Your task to perform on an android device: Go to calendar. Show me events next week Image 0: 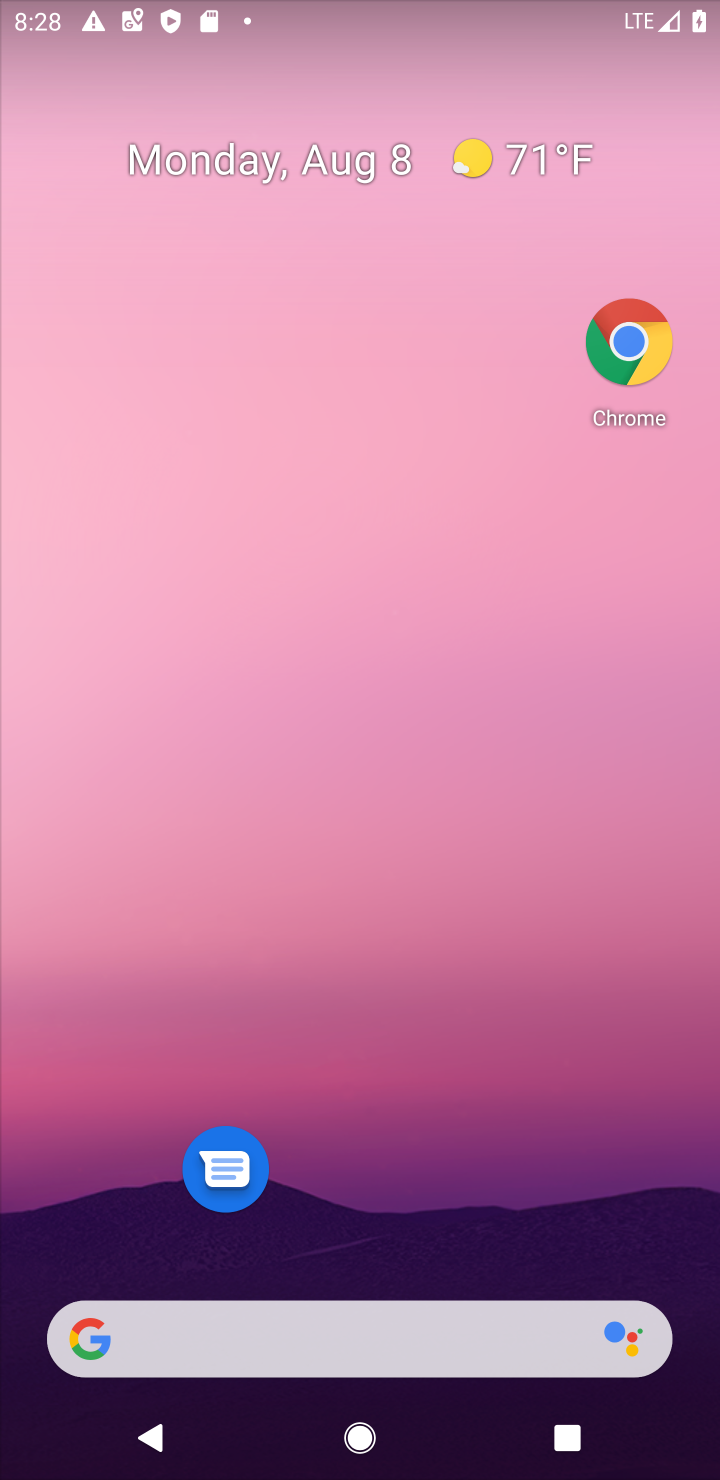
Step 0: drag from (421, 1194) to (603, 64)
Your task to perform on an android device: Go to calendar. Show me events next week Image 1: 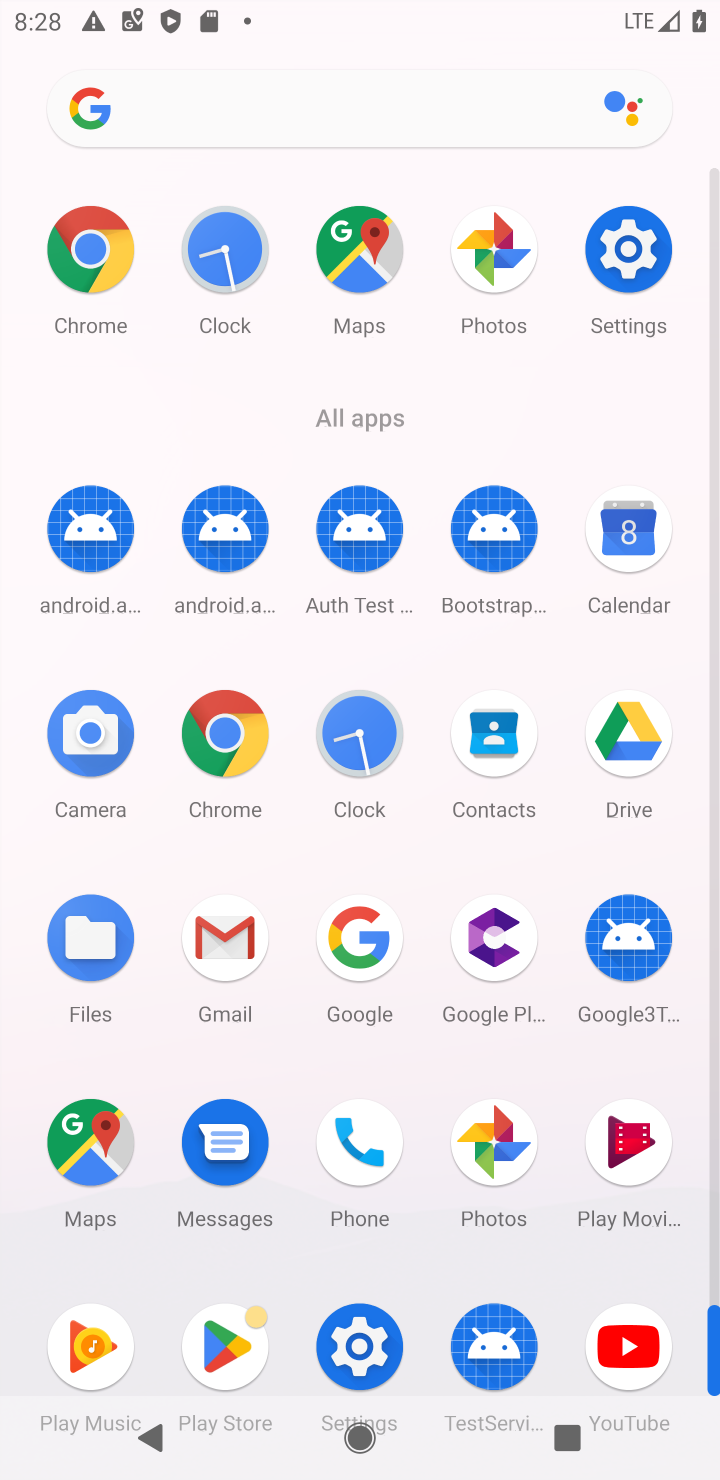
Step 1: click (619, 545)
Your task to perform on an android device: Go to calendar. Show me events next week Image 2: 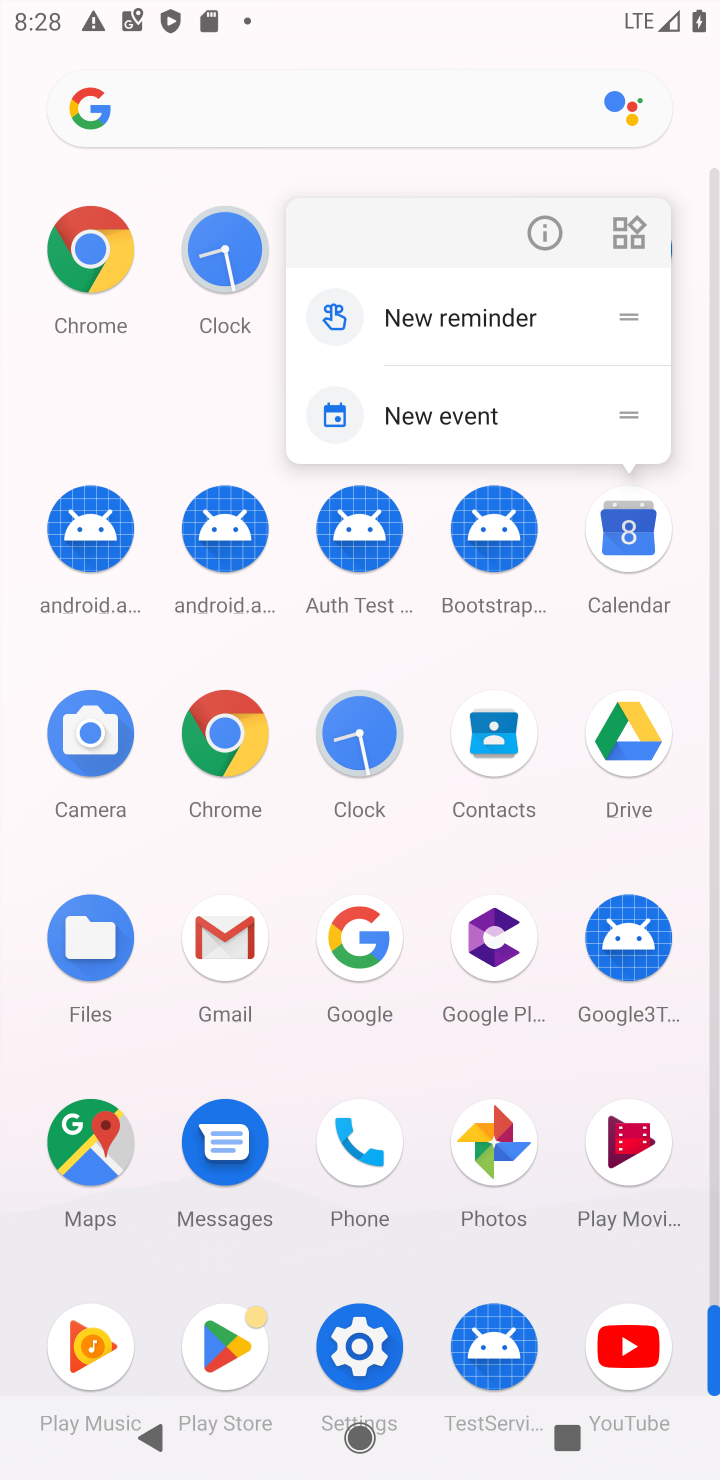
Step 2: click (619, 535)
Your task to perform on an android device: Go to calendar. Show me events next week Image 3: 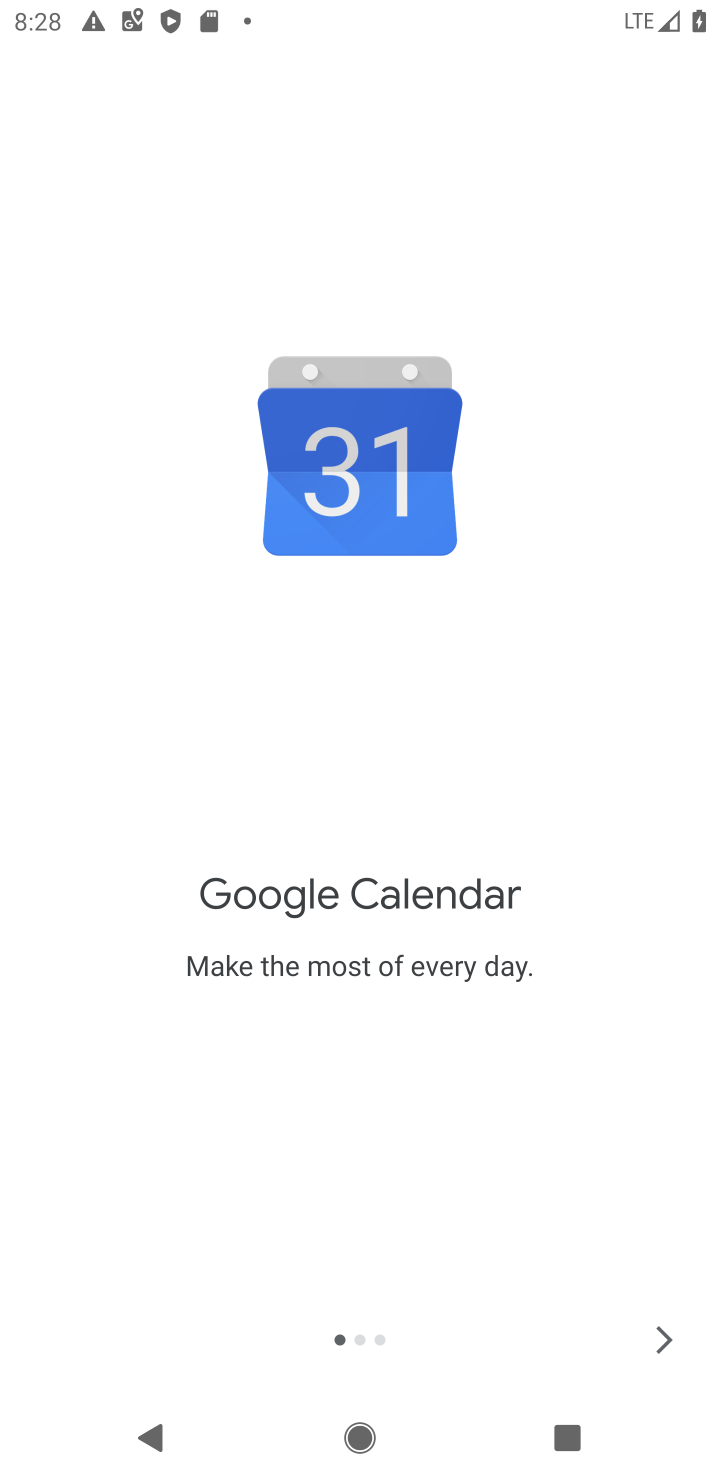
Step 3: click (657, 1341)
Your task to perform on an android device: Go to calendar. Show me events next week Image 4: 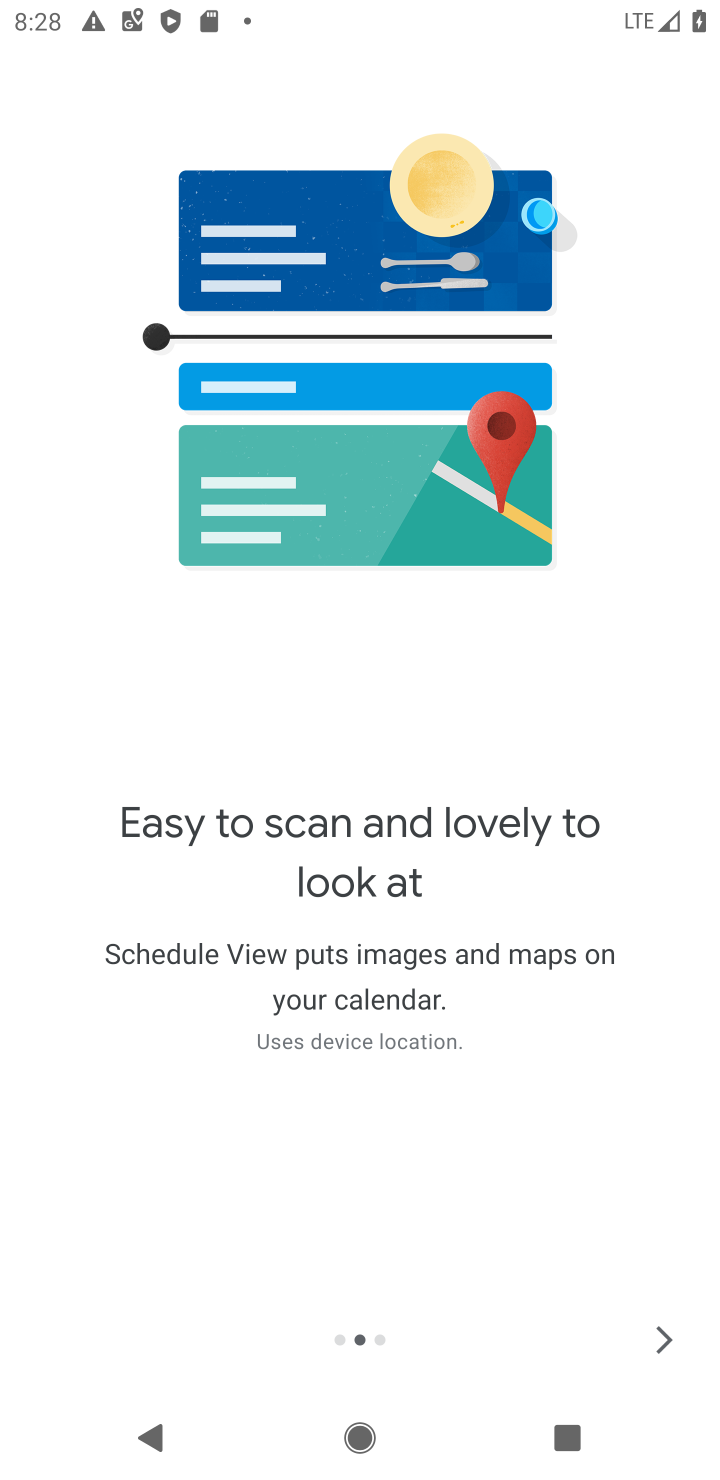
Step 4: click (657, 1341)
Your task to perform on an android device: Go to calendar. Show me events next week Image 5: 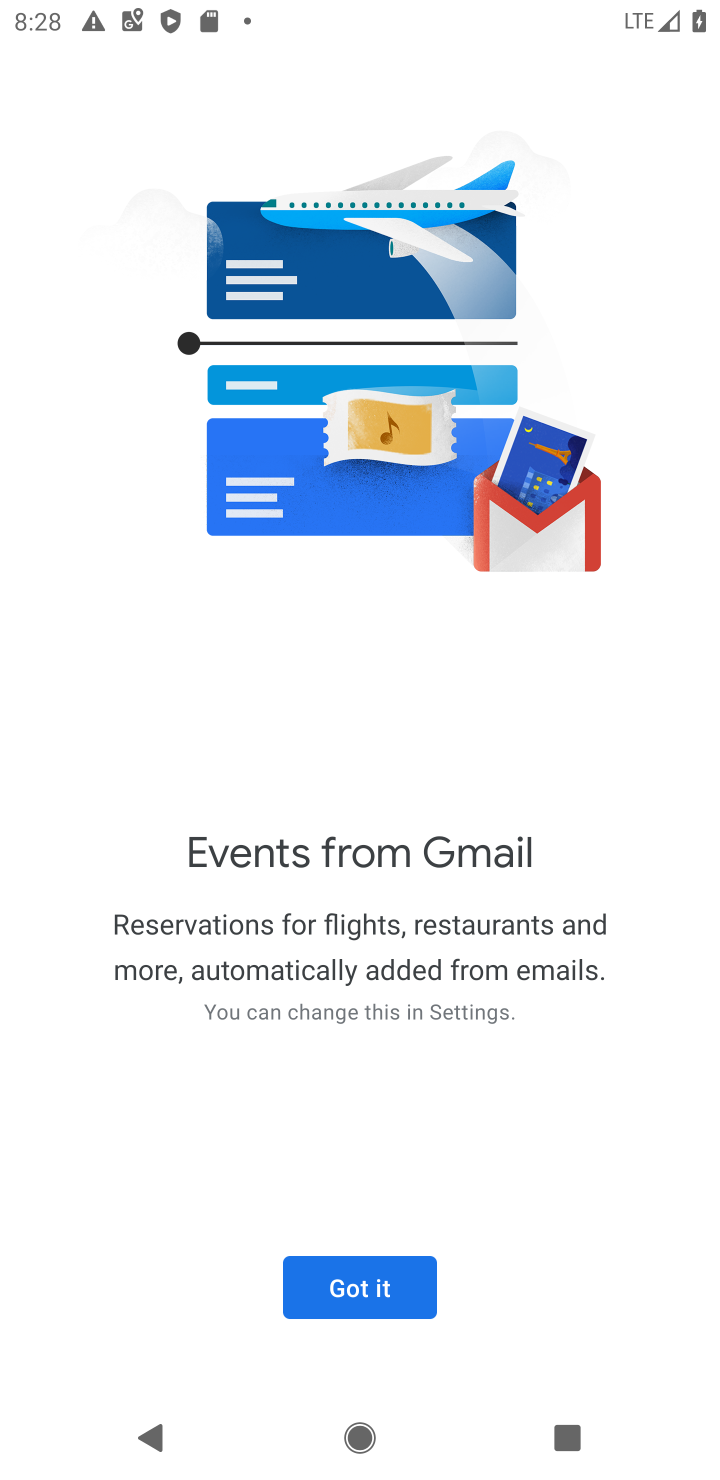
Step 5: click (397, 1292)
Your task to perform on an android device: Go to calendar. Show me events next week Image 6: 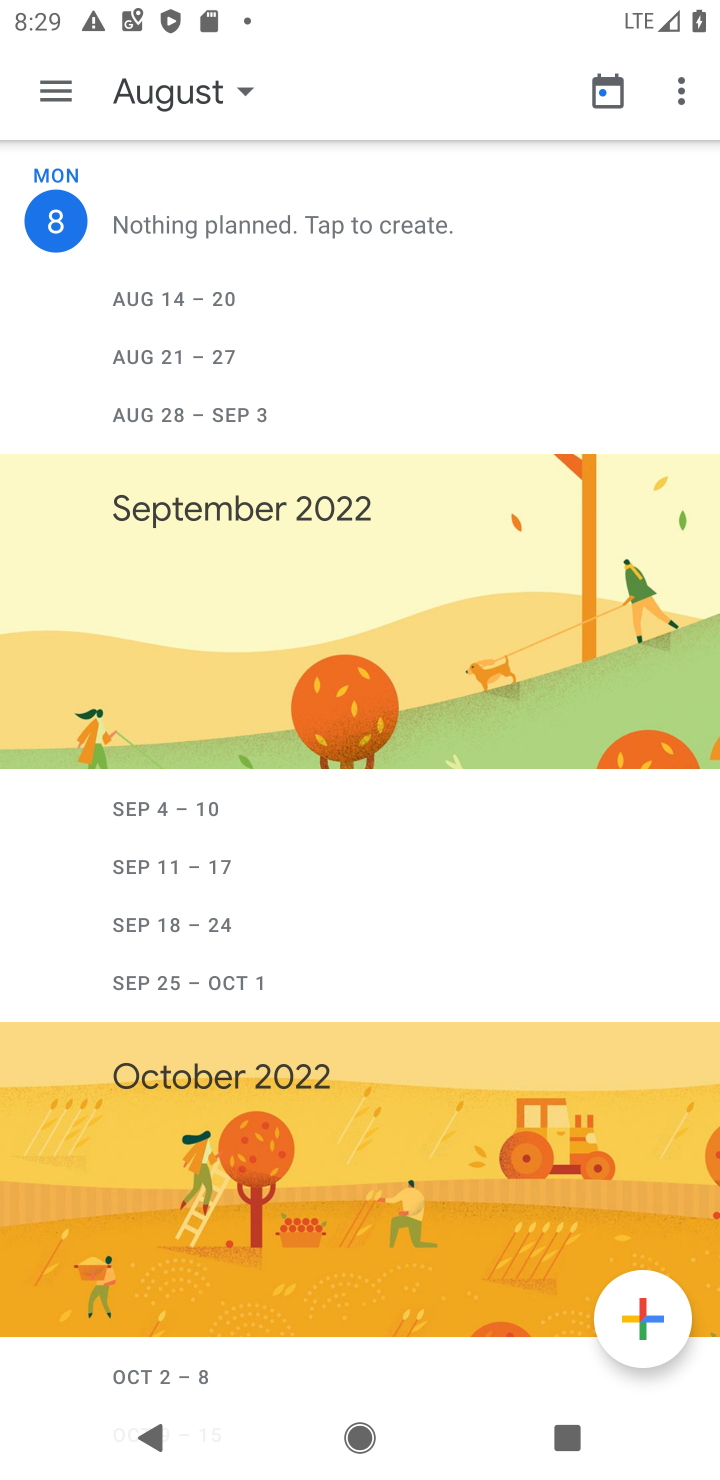
Step 6: click (181, 98)
Your task to perform on an android device: Go to calendar. Show me events next week Image 7: 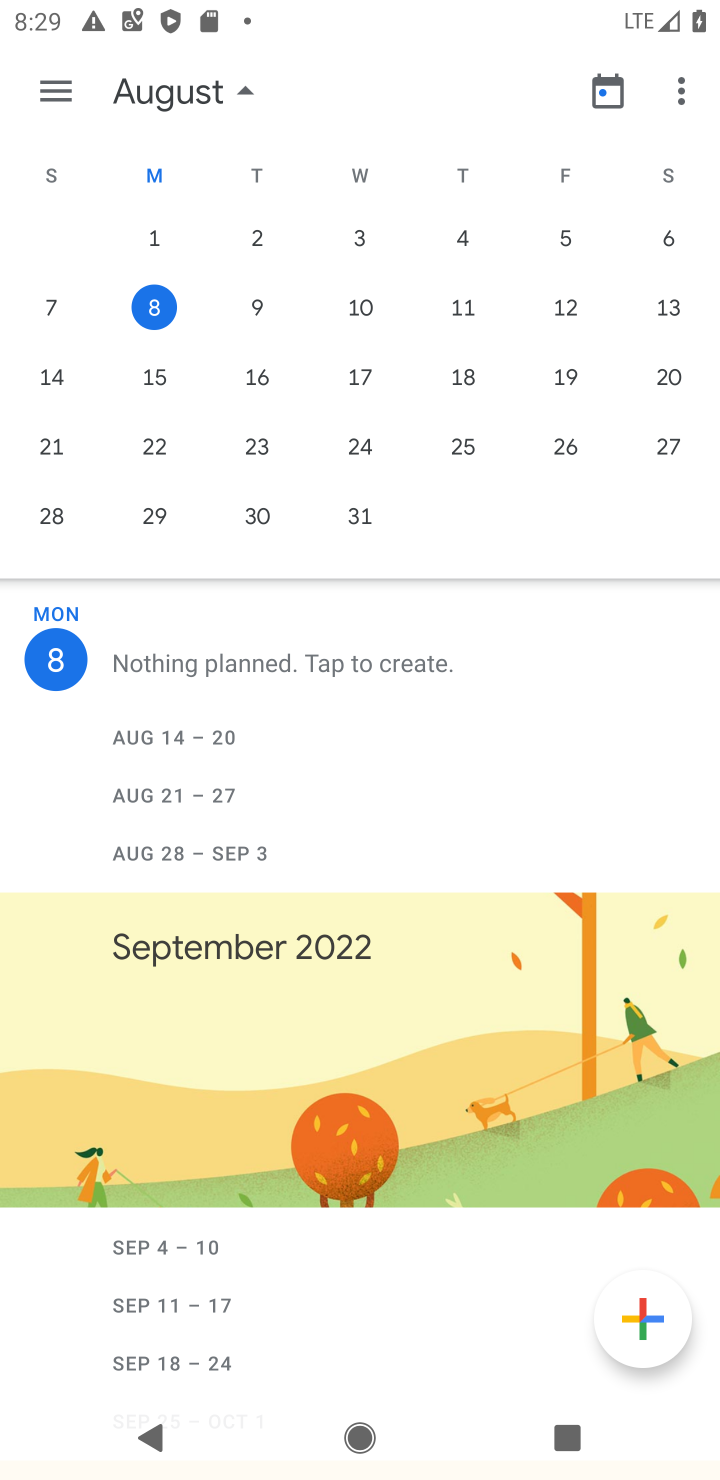
Step 7: click (148, 383)
Your task to perform on an android device: Go to calendar. Show me events next week Image 8: 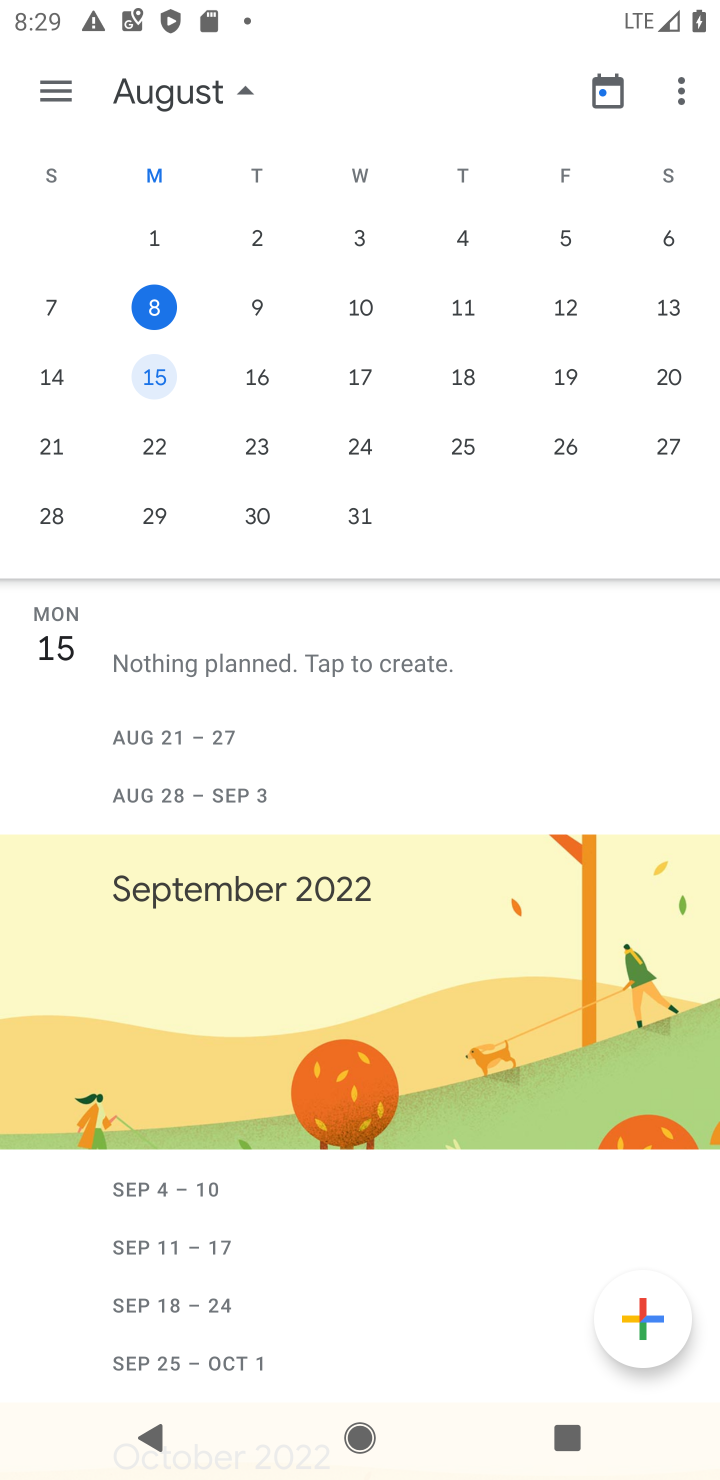
Step 8: task complete